Your task to perform on an android device: turn off sleep mode Image 0: 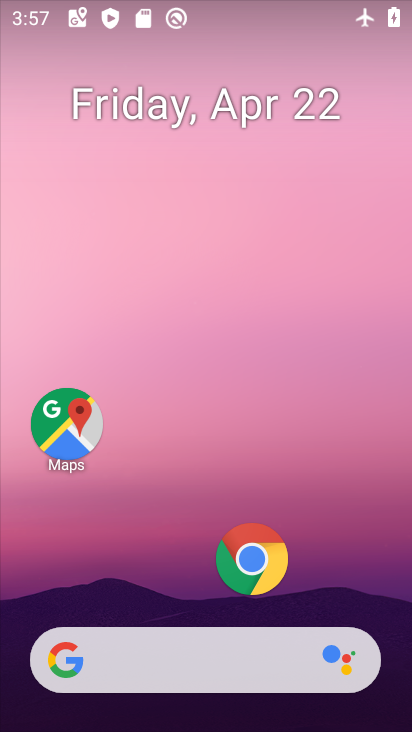
Step 0: click (287, 374)
Your task to perform on an android device: turn off sleep mode Image 1: 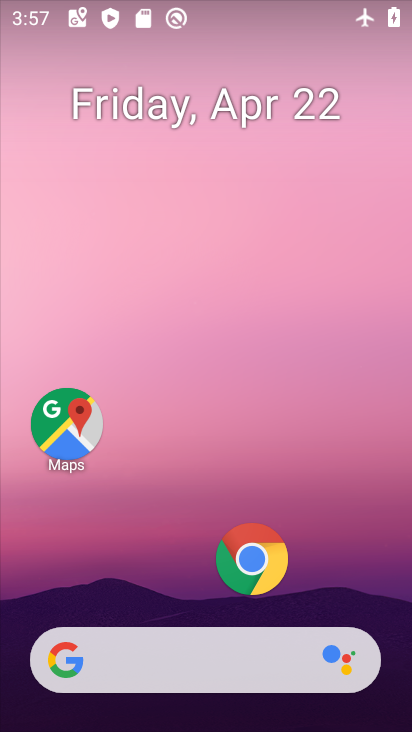
Step 1: drag from (167, 581) to (259, 12)
Your task to perform on an android device: turn off sleep mode Image 2: 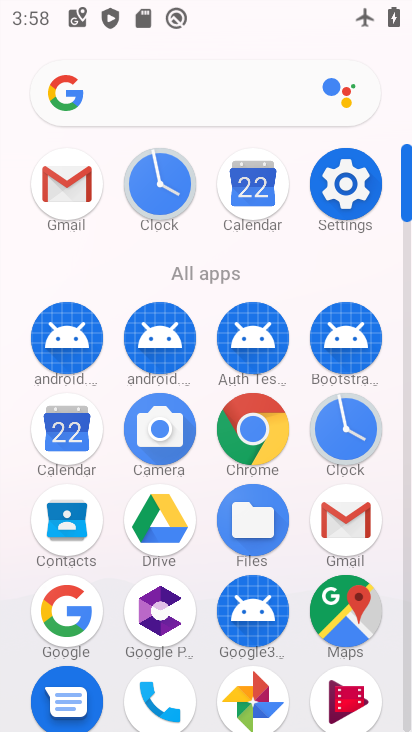
Step 2: click (352, 190)
Your task to perform on an android device: turn off sleep mode Image 3: 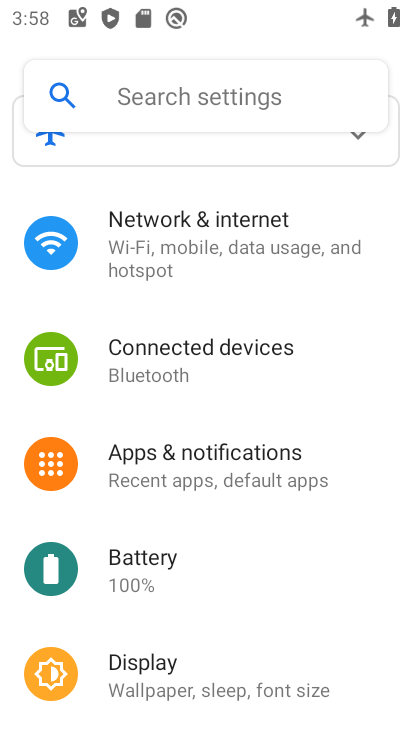
Step 3: click (210, 84)
Your task to perform on an android device: turn off sleep mode Image 4: 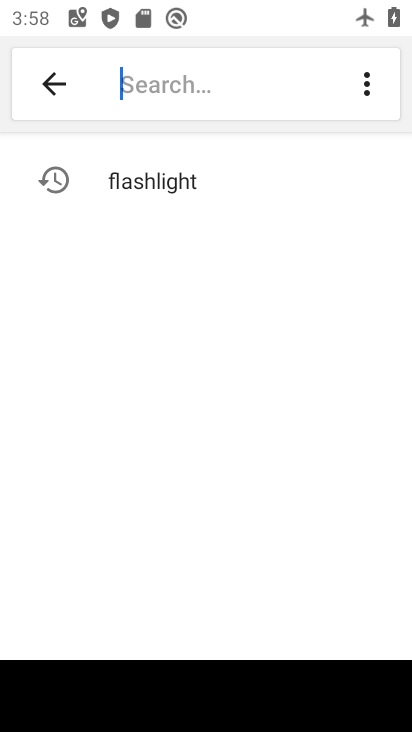
Step 4: type "sleep mode"
Your task to perform on an android device: turn off sleep mode Image 5: 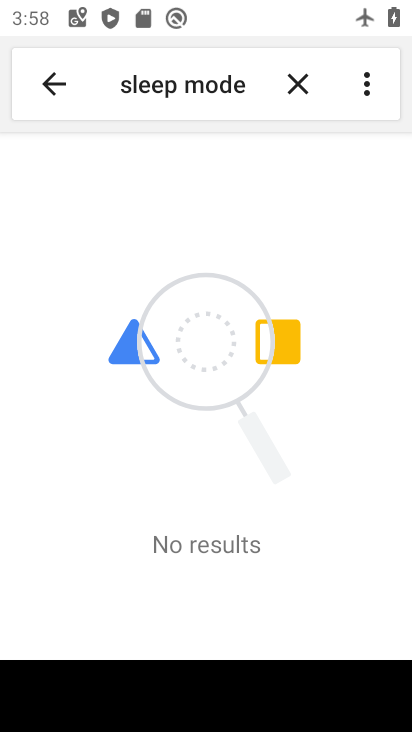
Step 5: task complete